Your task to perform on an android device: Go to settings Image 0: 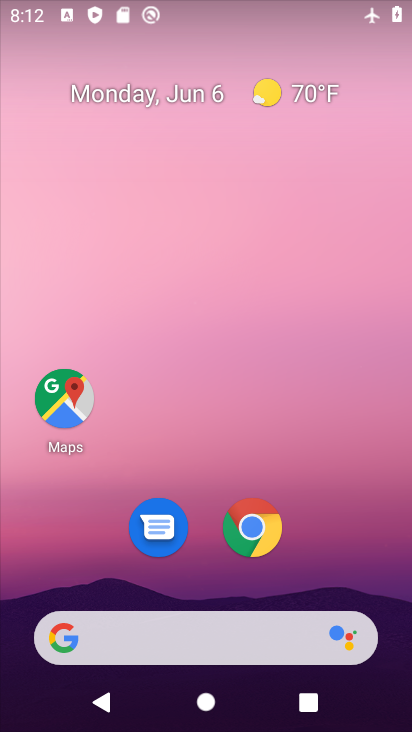
Step 0: drag from (206, 591) to (233, 256)
Your task to perform on an android device: Go to settings Image 1: 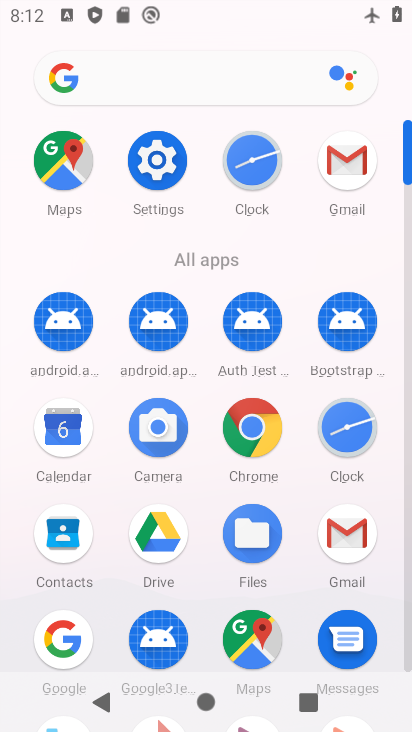
Step 1: click (161, 179)
Your task to perform on an android device: Go to settings Image 2: 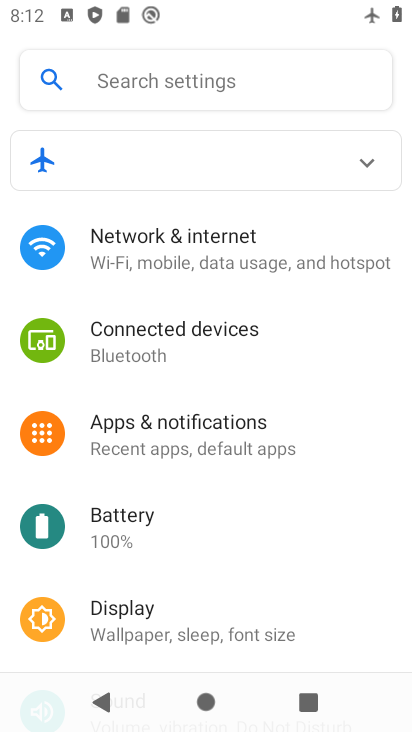
Step 2: task complete